Your task to perform on an android device: turn on airplane mode Image 0: 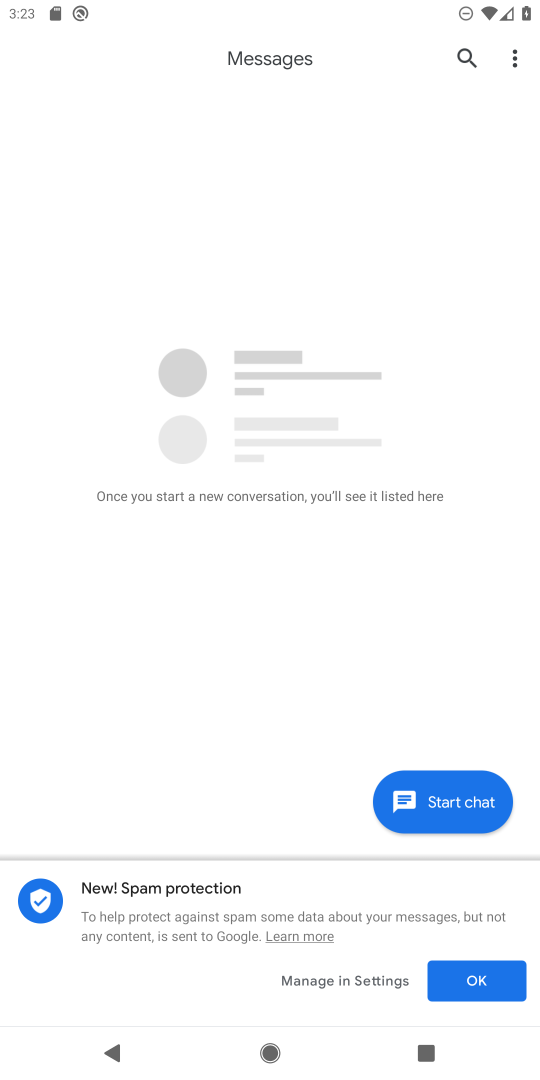
Step 0: press home button
Your task to perform on an android device: turn on airplane mode Image 1: 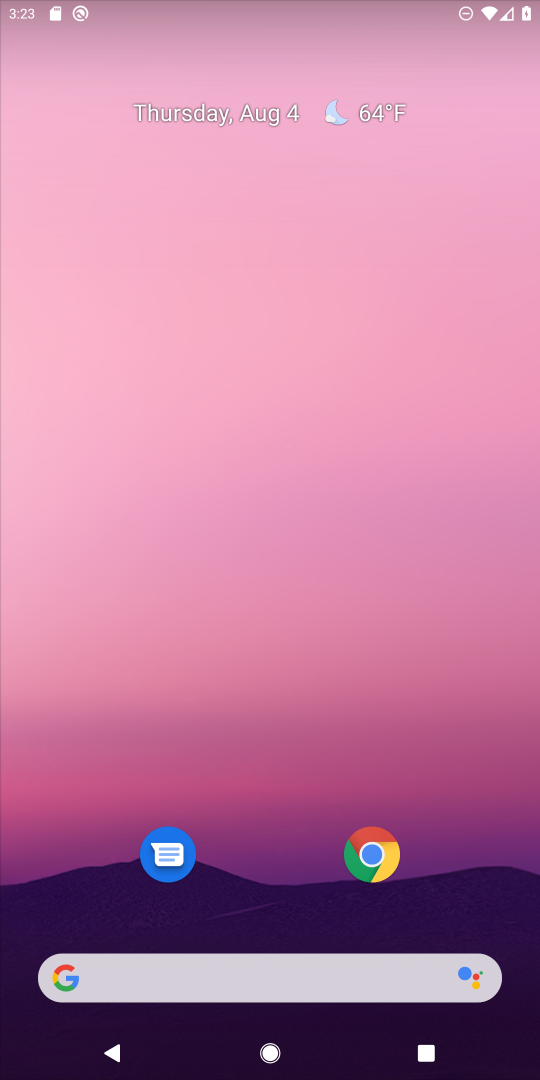
Step 1: drag from (274, 845) to (245, 232)
Your task to perform on an android device: turn on airplane mode Image 2: 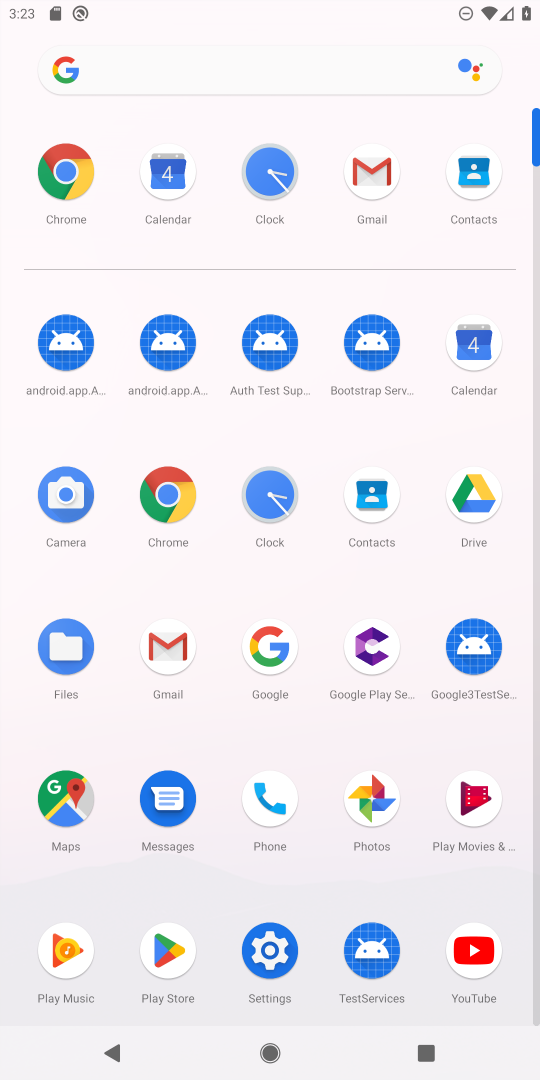
Step 2: click (275, 954)
Your task to perform on an android device: turn on airplane mode Image 3: 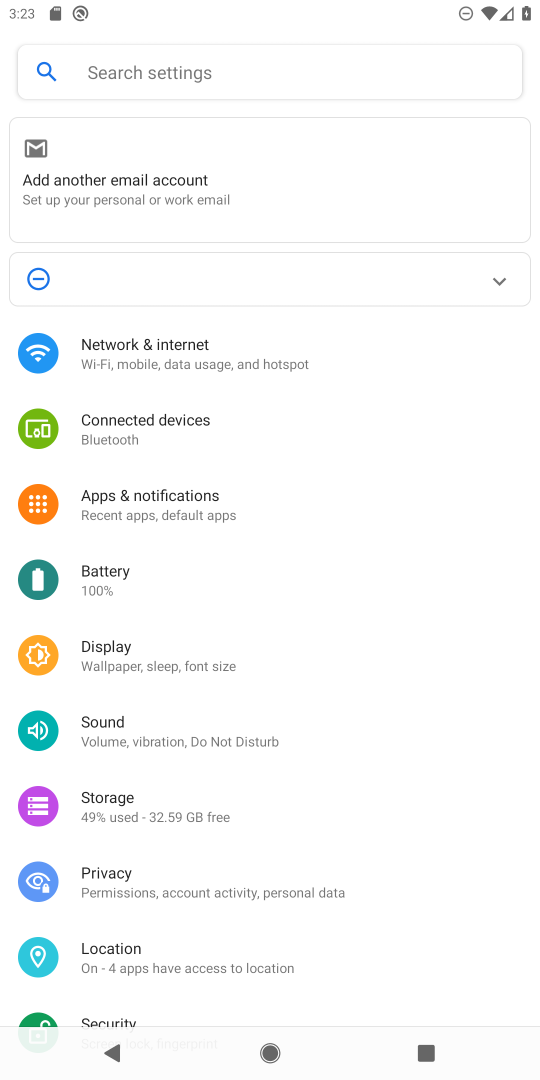
Step 3: click (146, 348)
Your task to perform on an android device: turn on airplane mode Image 4: 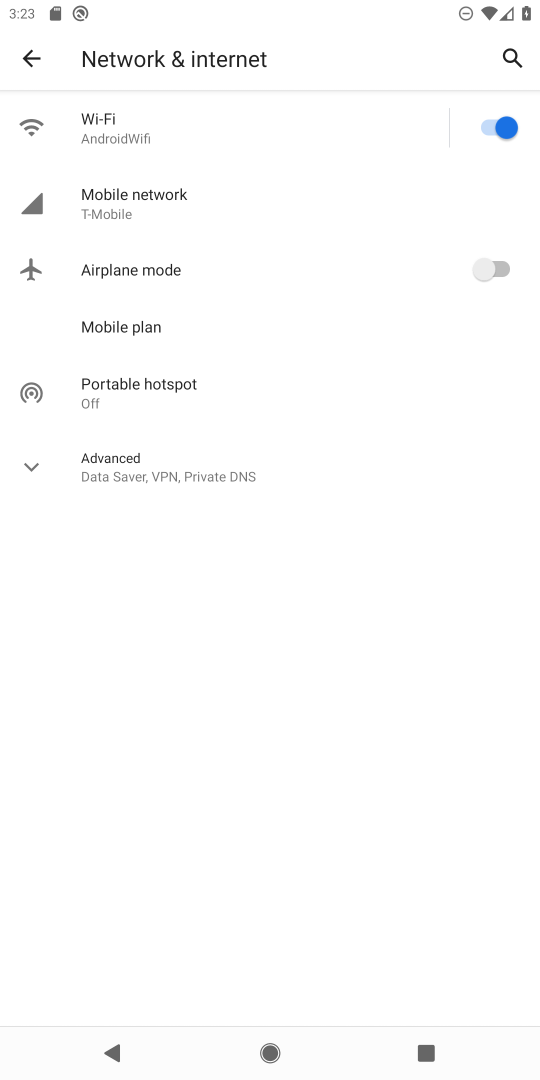
Step 4: click (481, 271)
Your task to perform on an android device: turn on airplane mode Image 5: 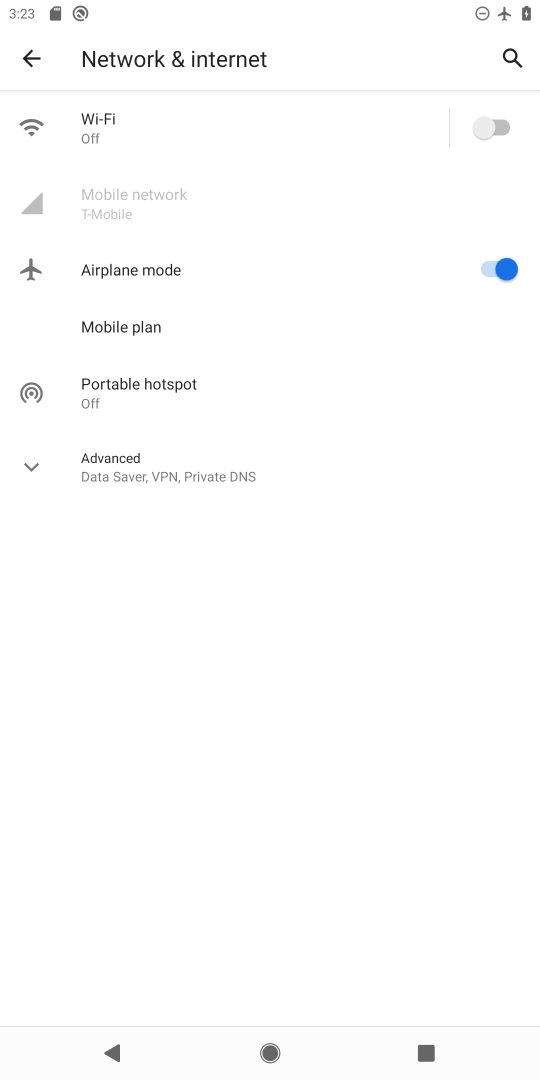
Step 5: task complete